Your task to perform on an android device: move an email to a new category in the gmail app Image 0: 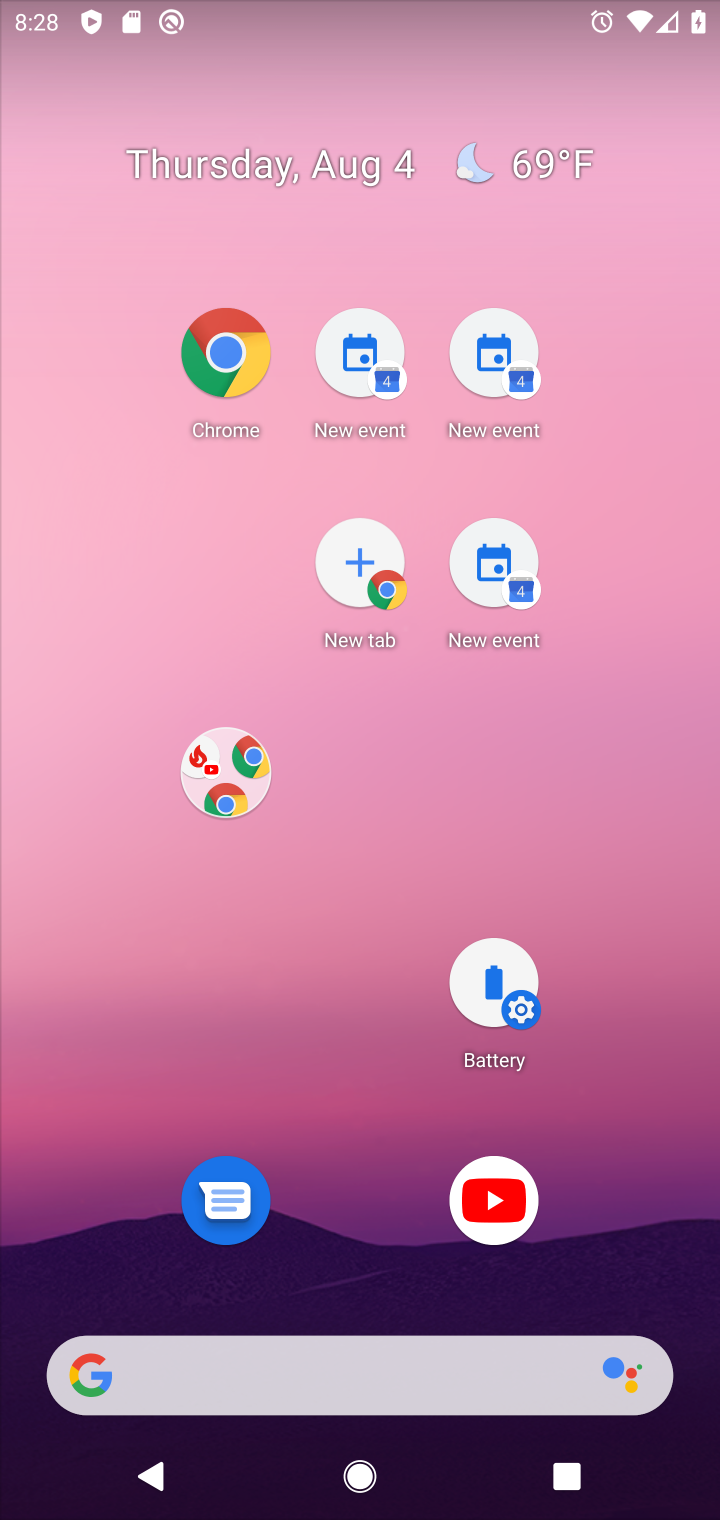
Step 0: press back button
Your task to perform on an android device: move an email to a new category in the gmail app Image 1: 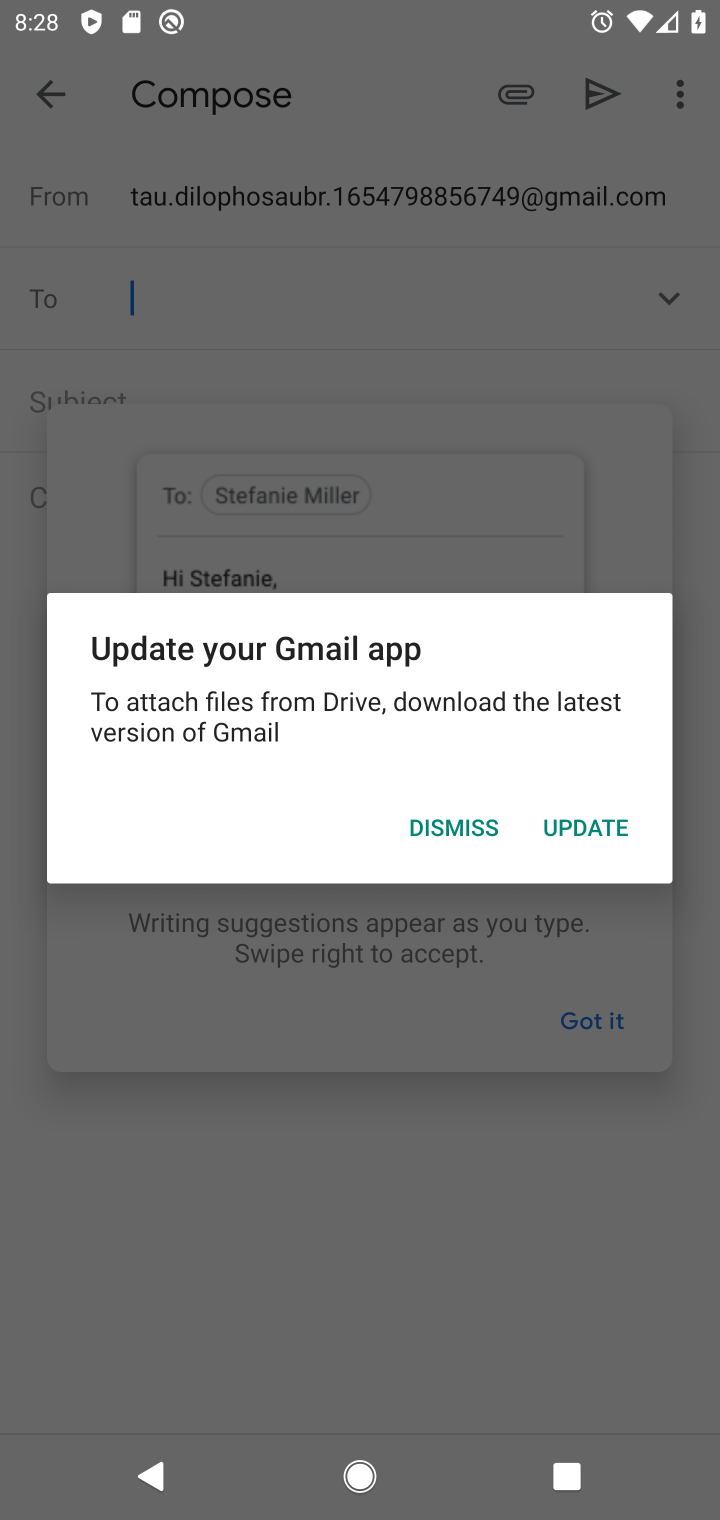
Step 1: click (423, 822)
Your task to perform on an android device: move an email to a new category in the gmail app Image 2: 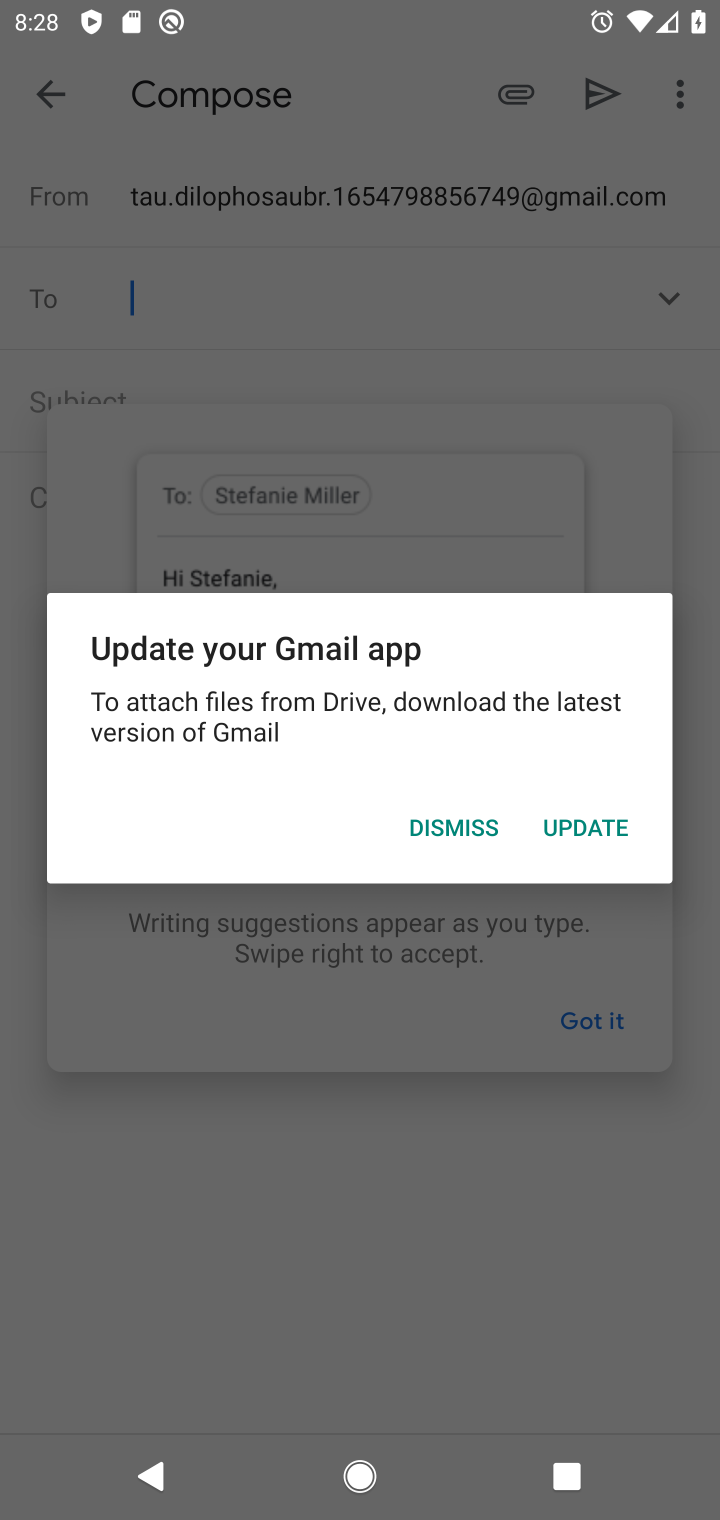
Step 2: click (423, 822)
Your task to perform on an android device: move an email to a new category in the gmail app Image 3: 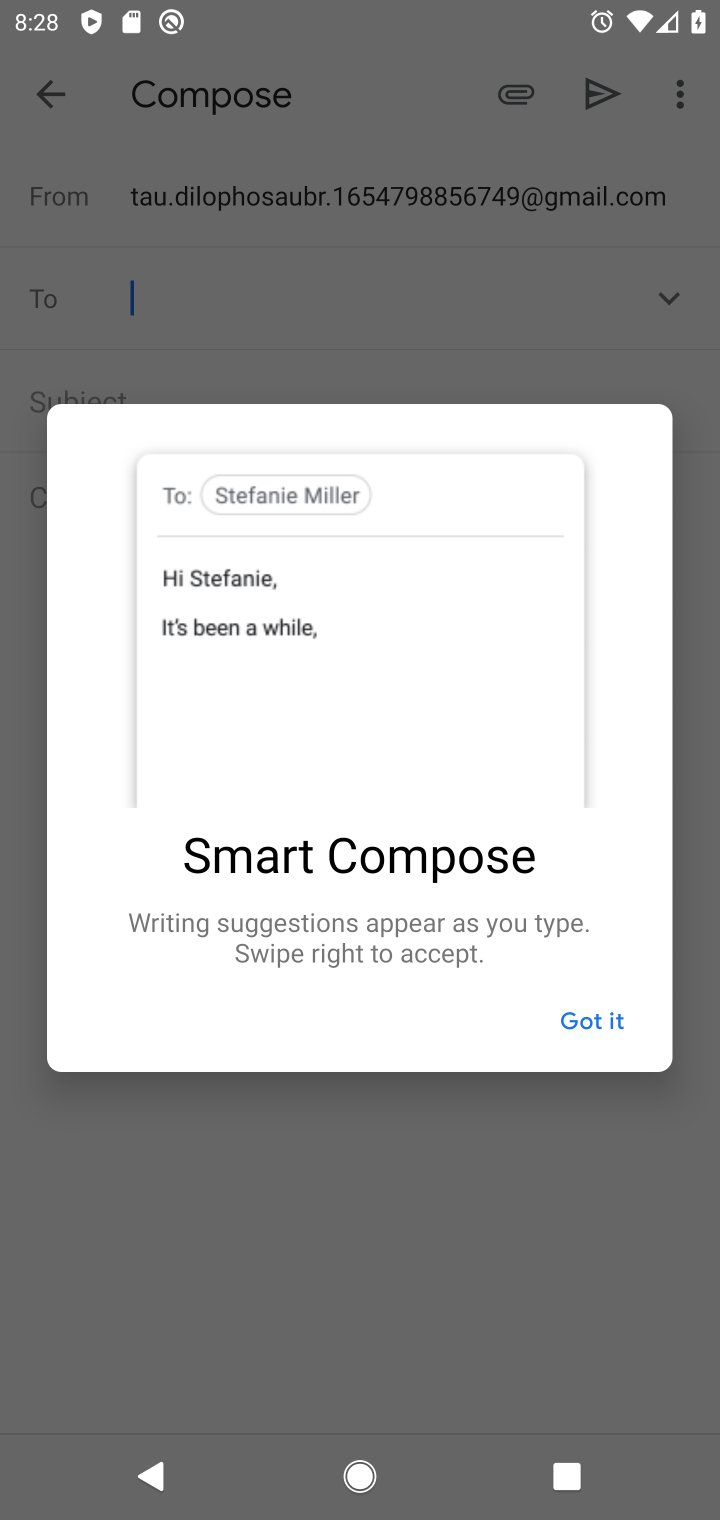
Step 3: click (583, 1026)
Your task to perform on an android device: move an email to a new category in the gmail app Image 4: 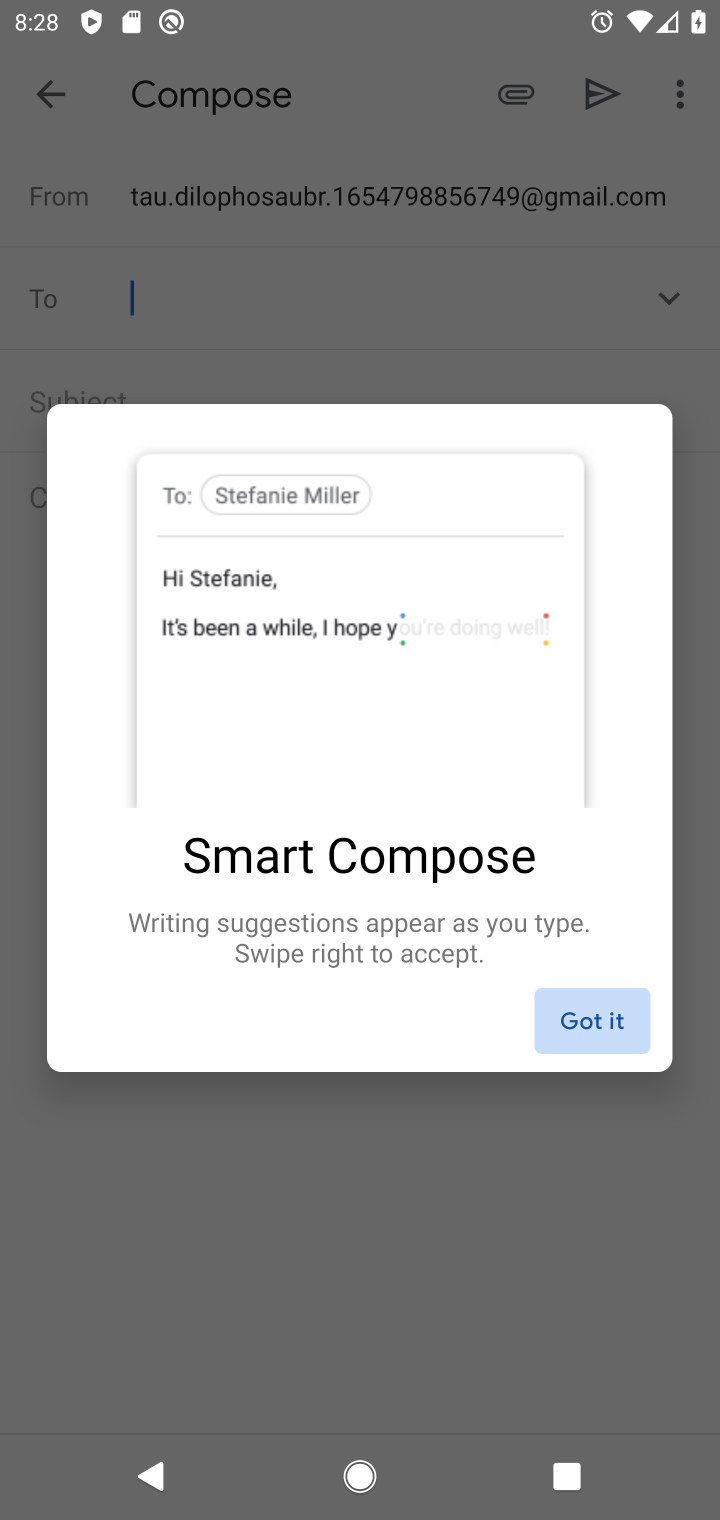
Step 4: click (589, 1021)
Your task to perform on an android device: move an email to a new category in the gmail app Image 5: 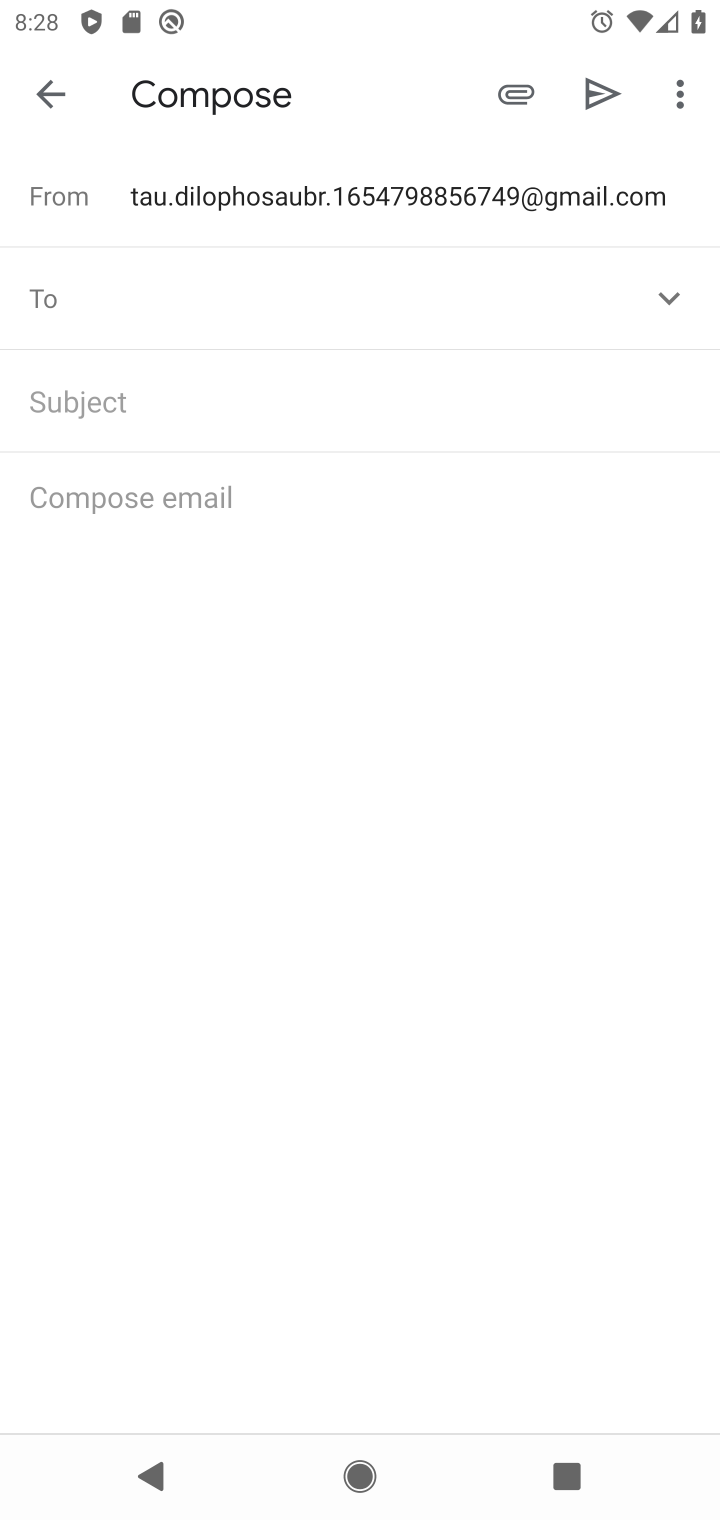
Step 5: click (53, 97)
Your task to perform on an android device: move an email to a new category in the gmail app Image 6: 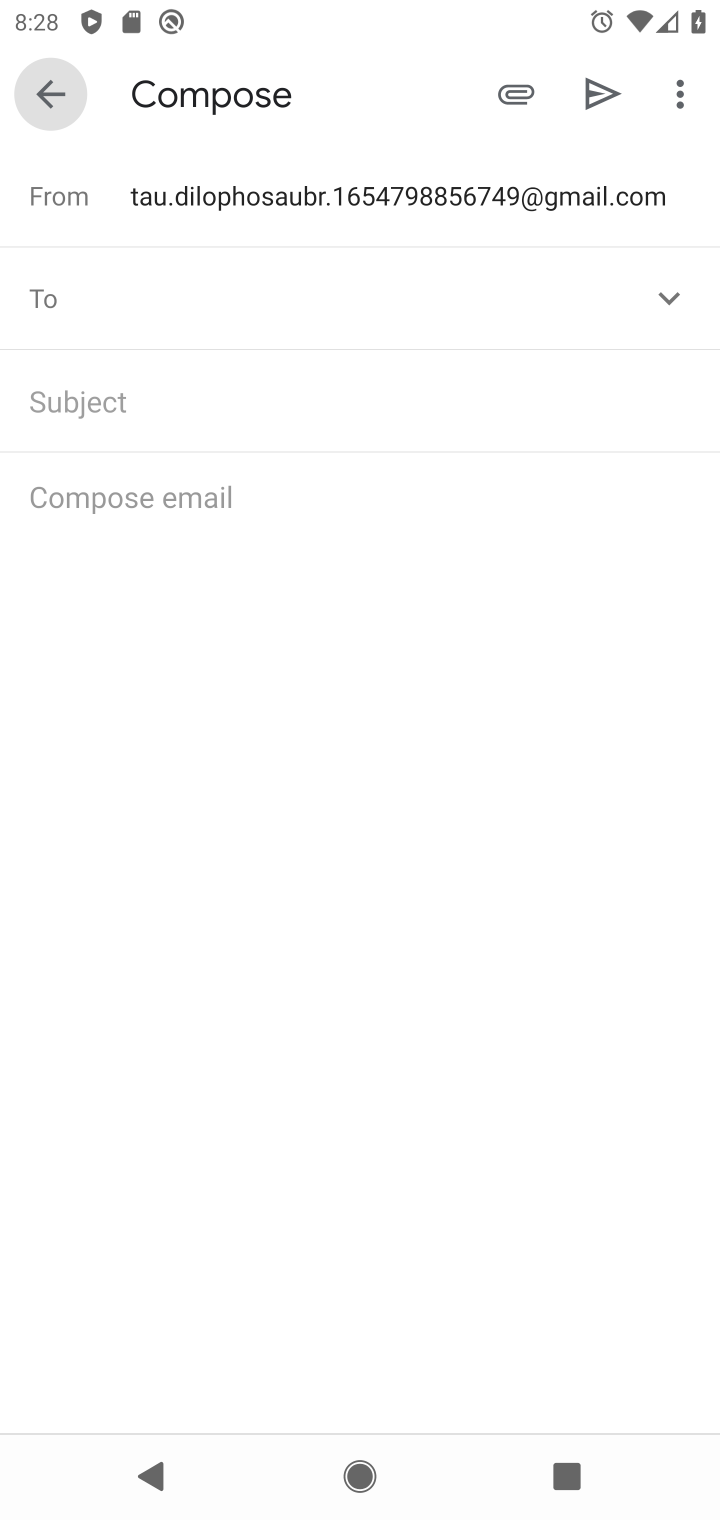
Step 6: click (51, 95)
Your task to perform on an android device: move an email to a new category in the gmail app Image 7: 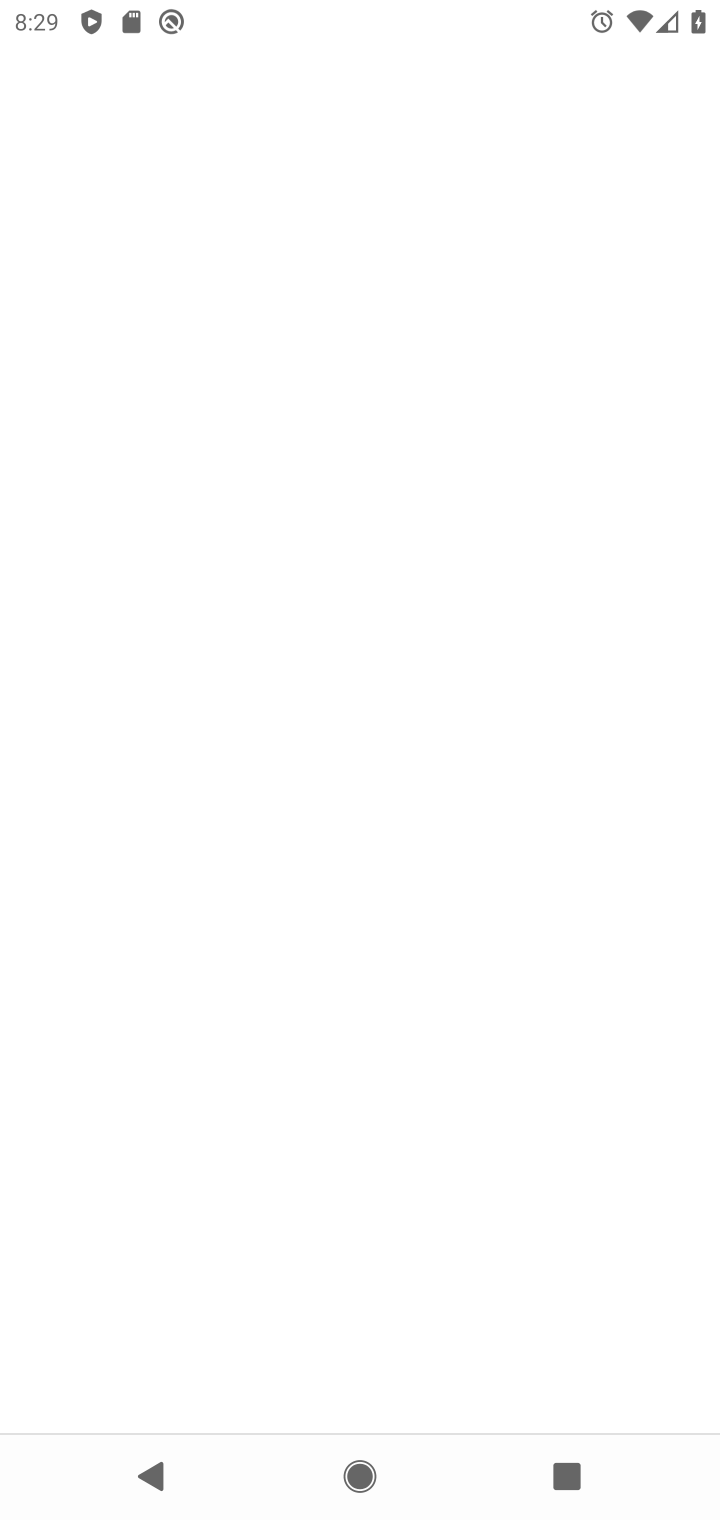
Step 7: click (72, 91)
Your task to perform on an android device: move an email to a new category in the gmail app Image 8: 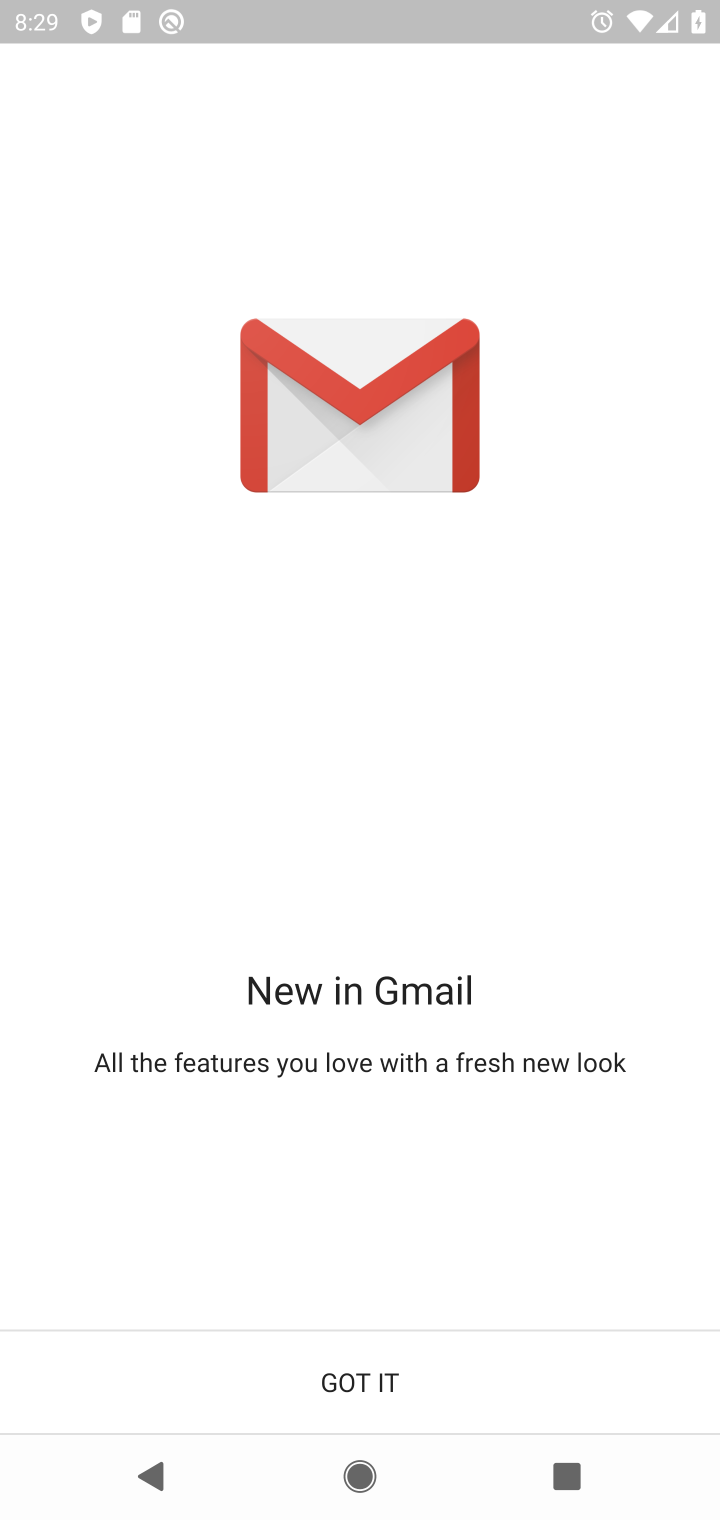
Step 8: click (334, 1369)
Your task to perform on an android device: move an email to a new category in the gmail app Image 9: 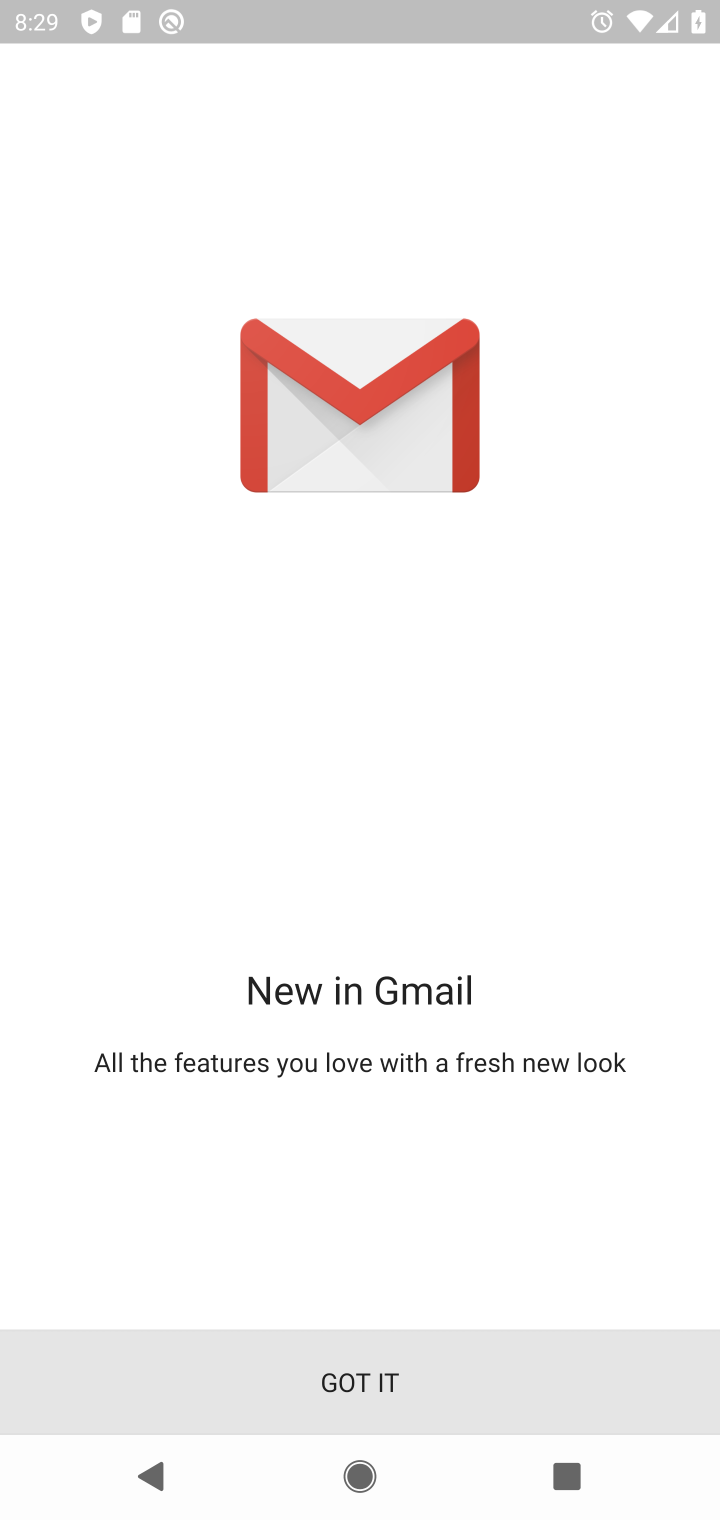
Step 9: click (332, 1369)
Your task to perform on an android device: move an email to a new category in the gmail app Image 10: 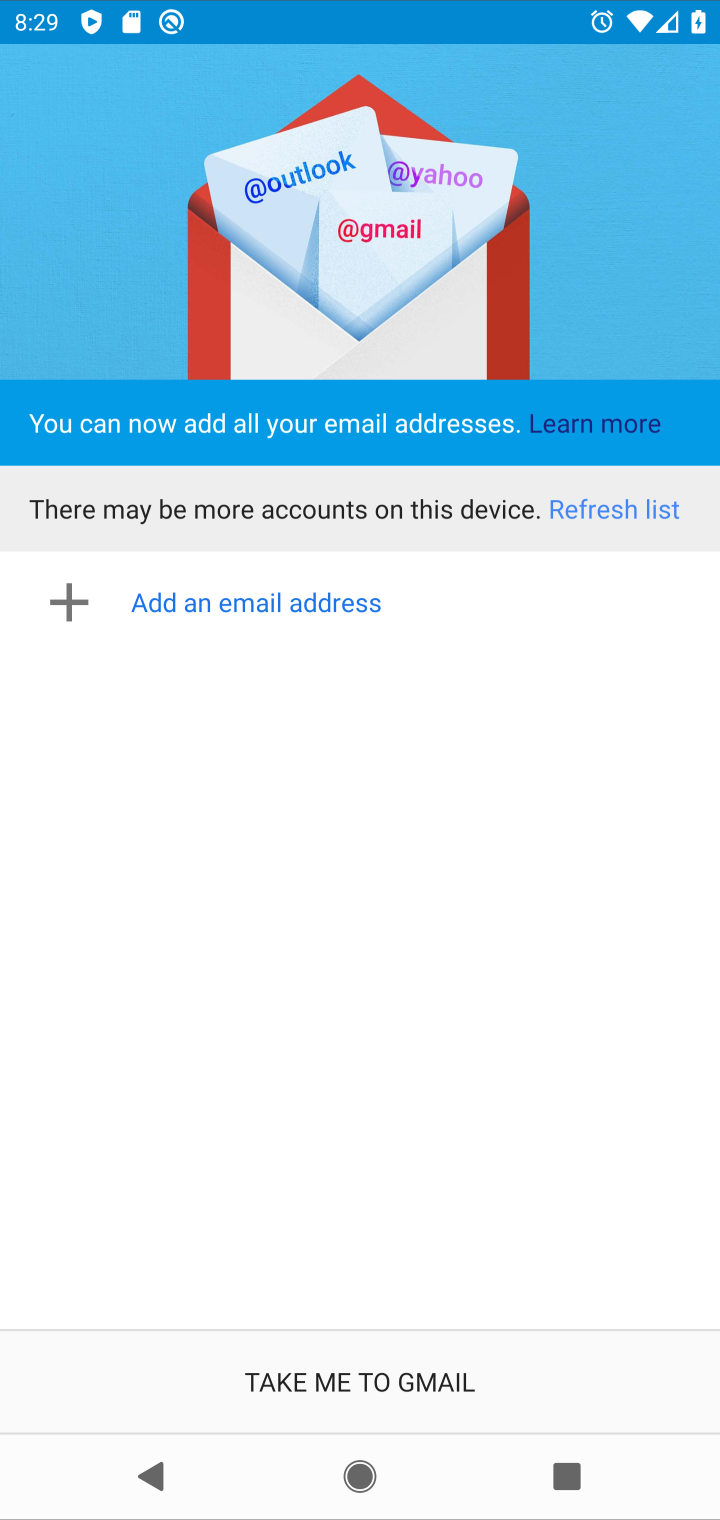
Step 10: click (341, 1368)
Your task to perform on an android device: move an email to a new category in the gmail app Image 11: 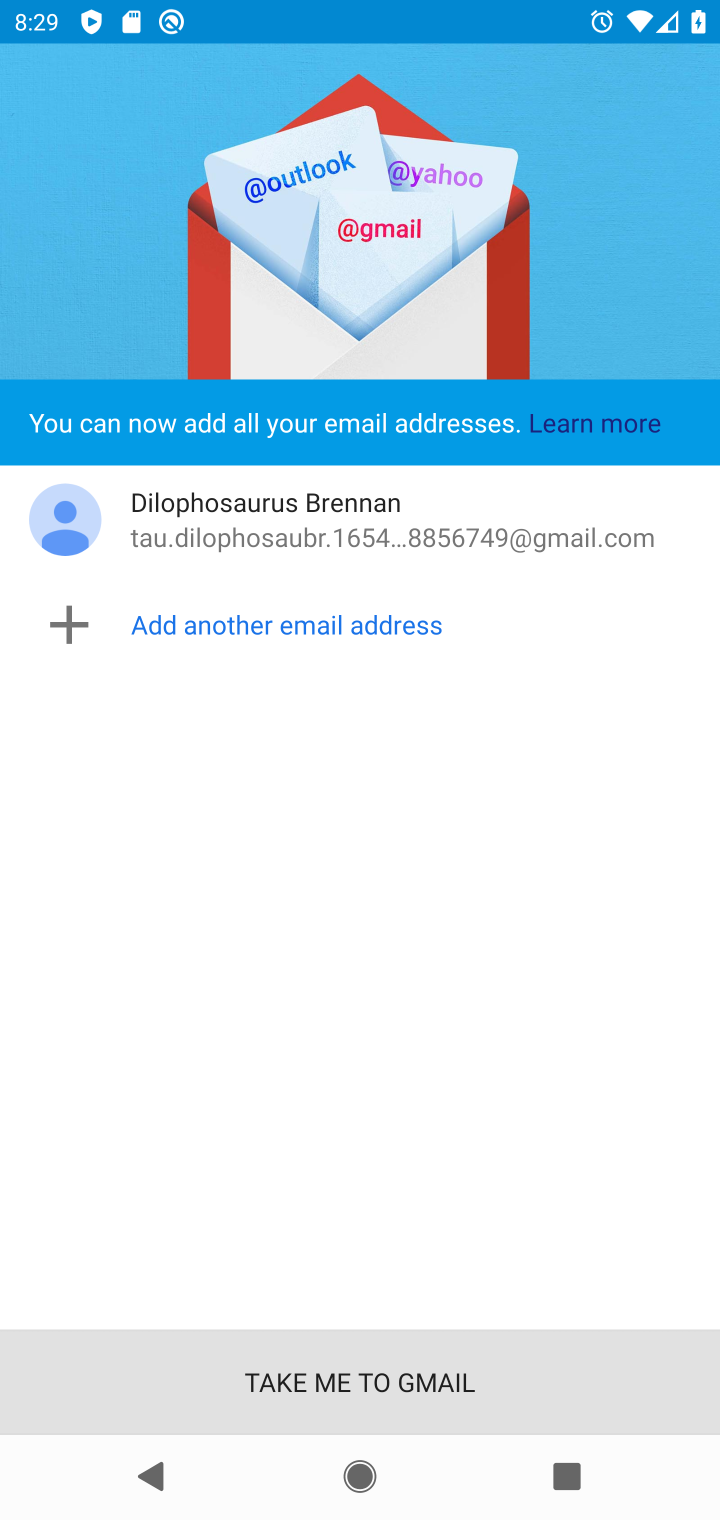
Step 11: click (341, 1368)
Your task to perform on an android device: move an email to a new category in the gmail app Image 12: 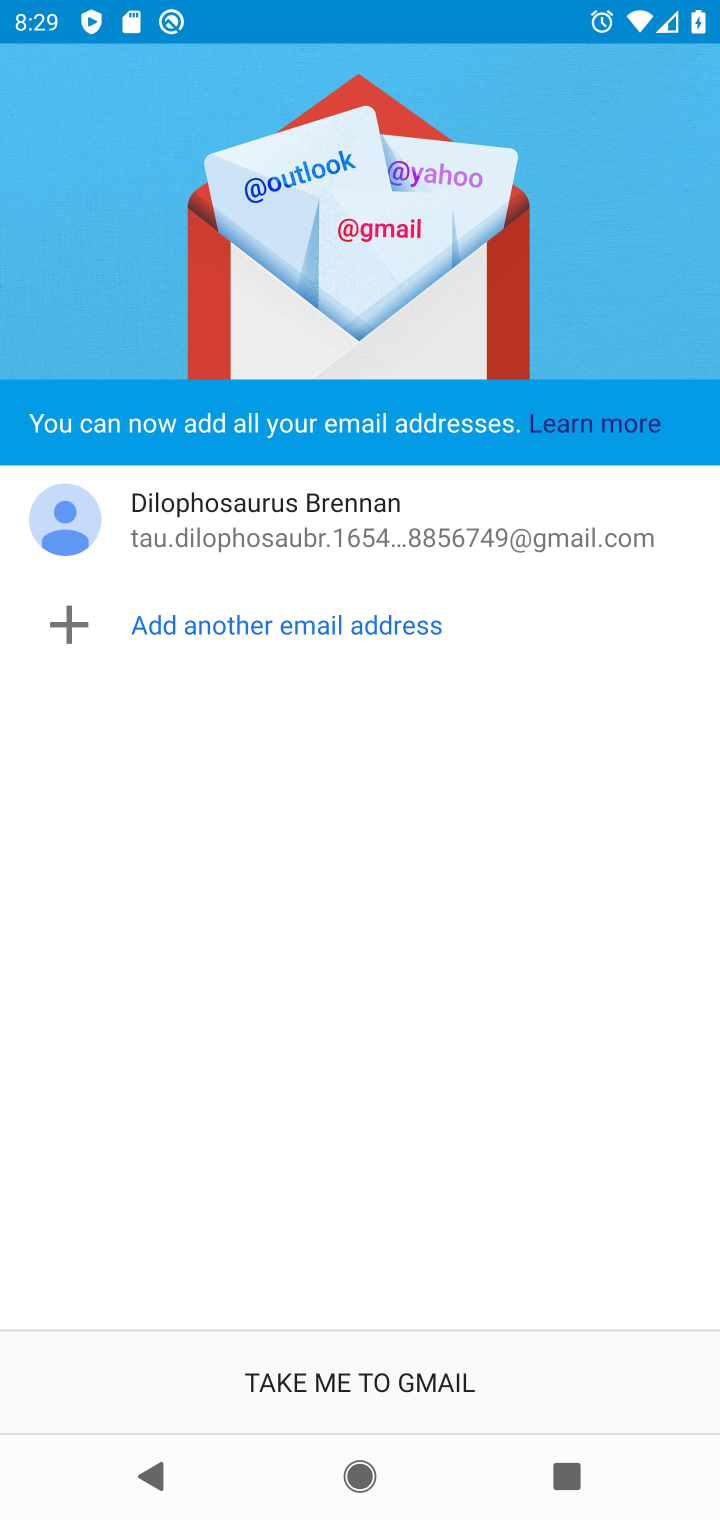
Step 12: click (341, 1368)
Your task to perform on an android device: move an email to a new category in the gmail app Image 13: 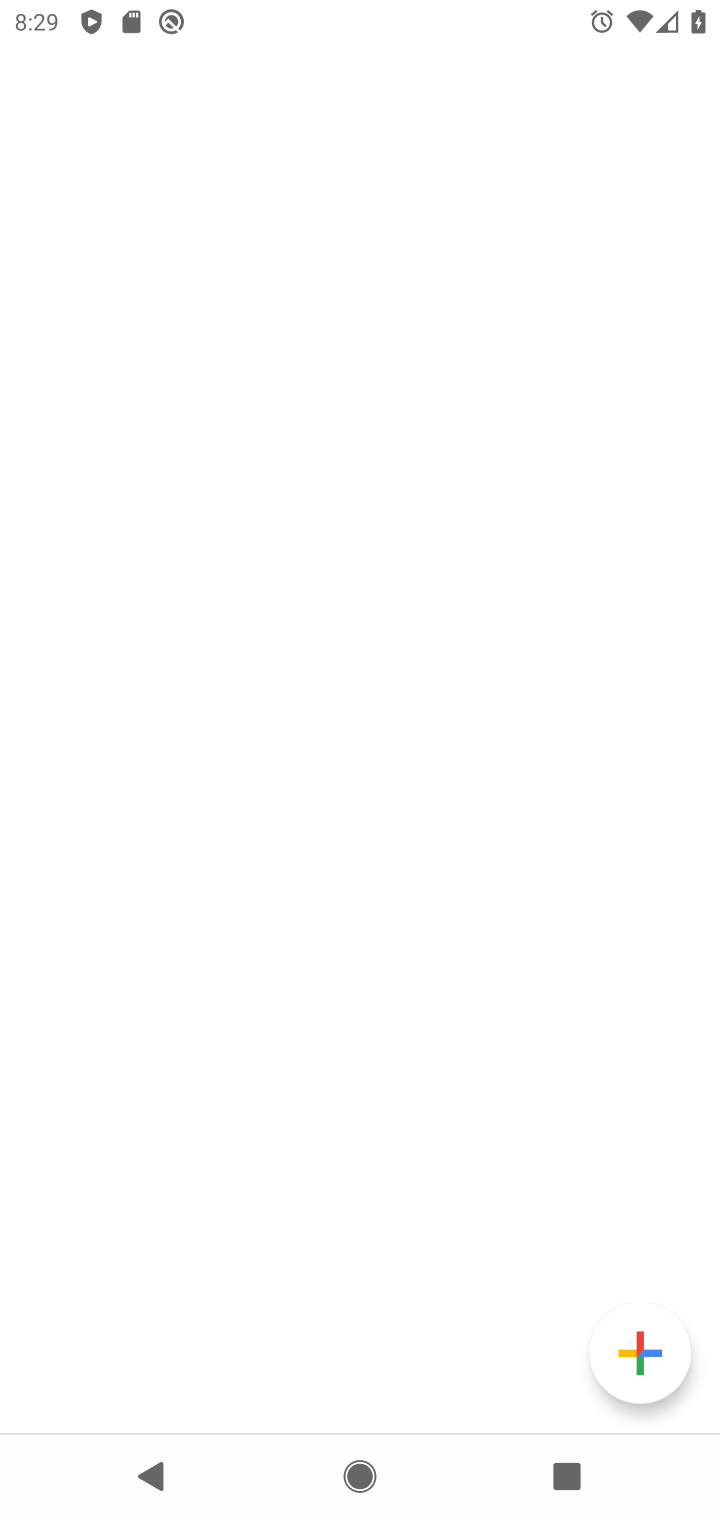
Step 13: click (341, 1368)
Your task to perform on an android device: move an email to a new category in the gmail app Image 14: 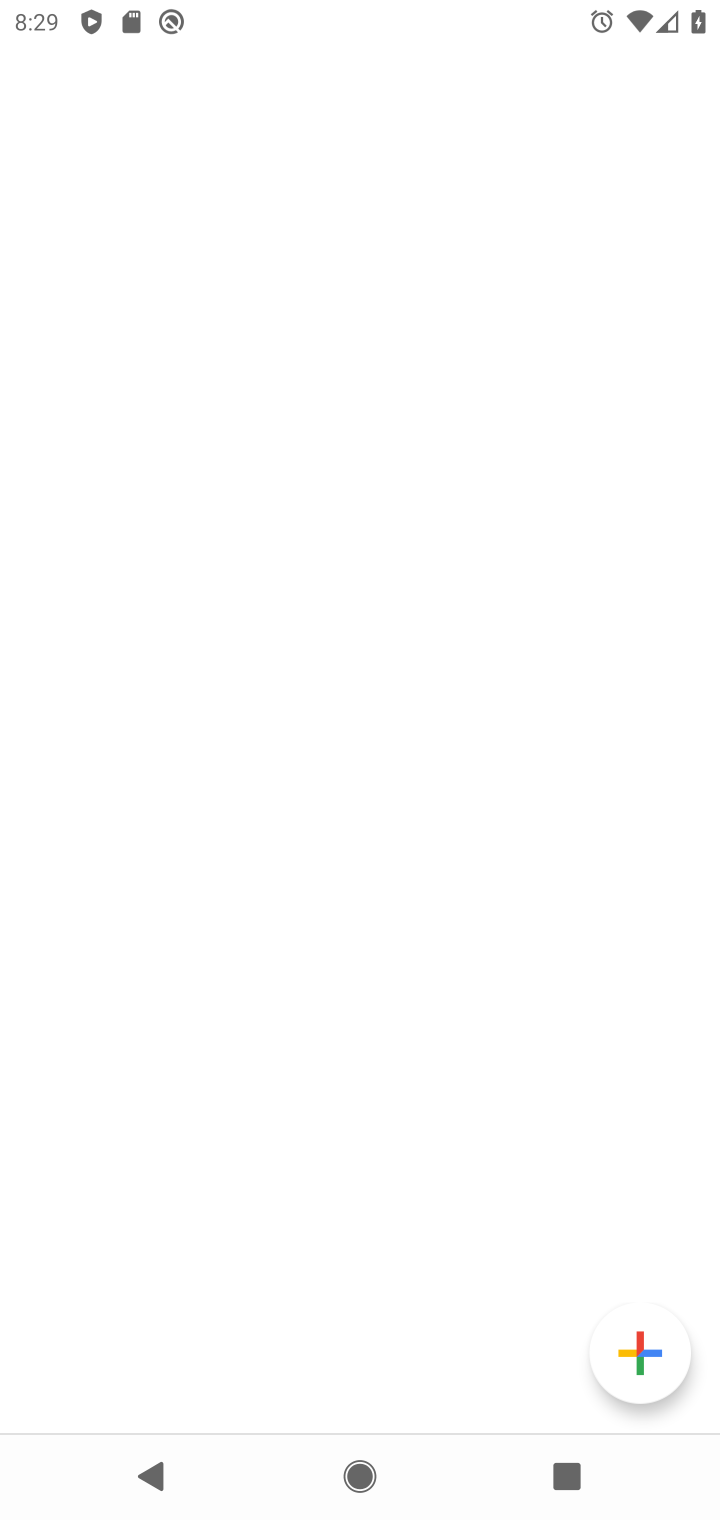
Step 14: click (341, 1368)
Your task to perform on an android device: move an email to a new category in the gmail app Image 15: 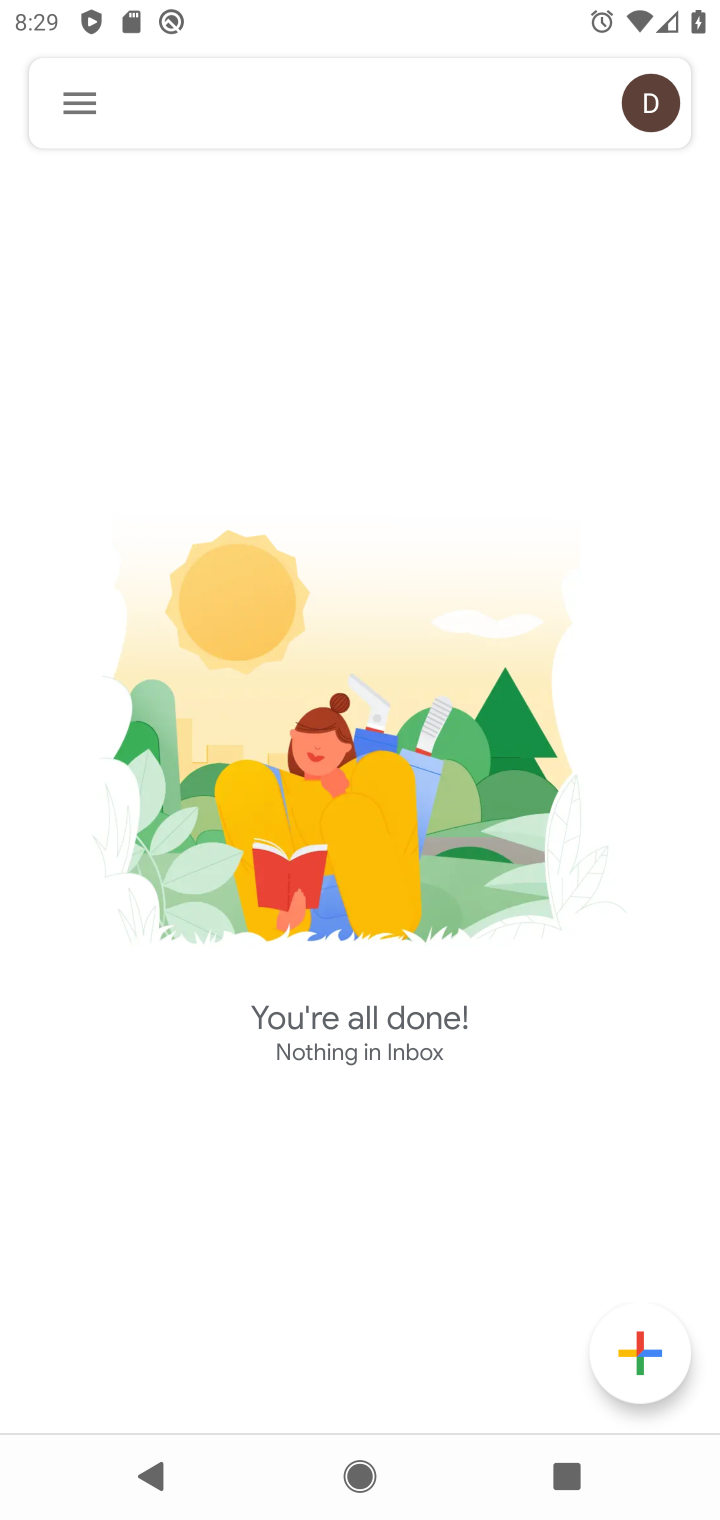
Step 15: click (76, 109)
Your task to perform on an android device: move an email to a new category in the gmail app Image 16: 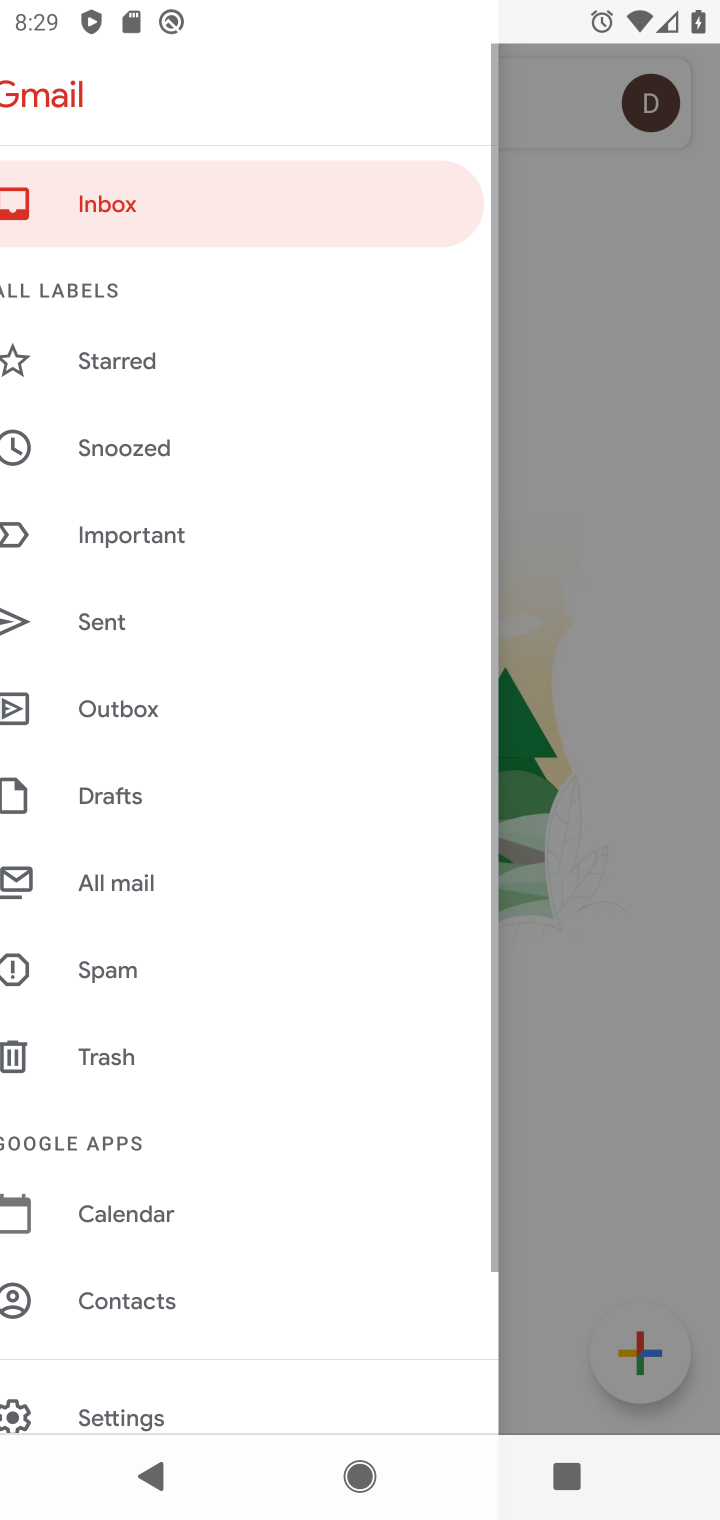
Step 16: click (76, 109)
Your task to perform on an android device: move an email to a new category in the gmail app Image 17: 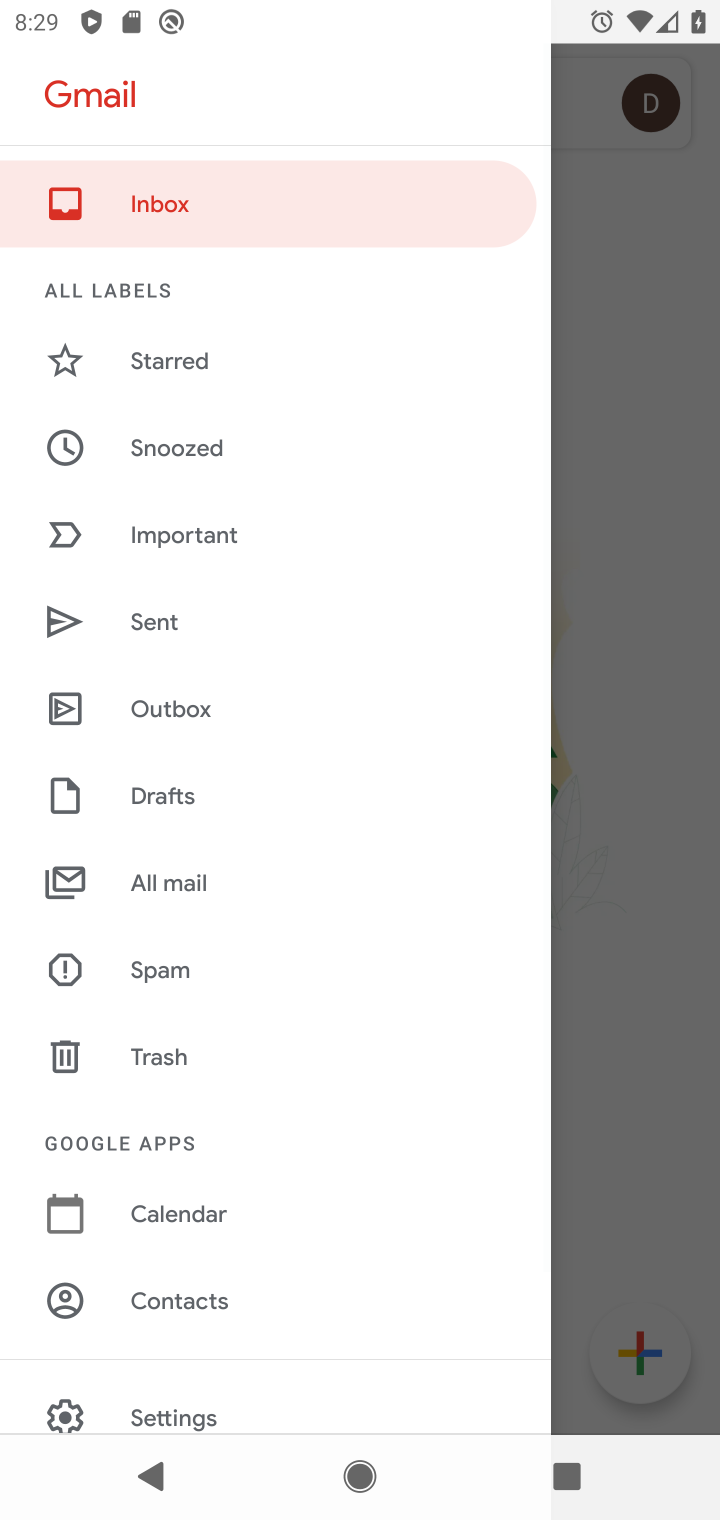
Step 17: click (179, 886)
Your task to perform on an android device: move an email to a new category in the gmail app Image 18: 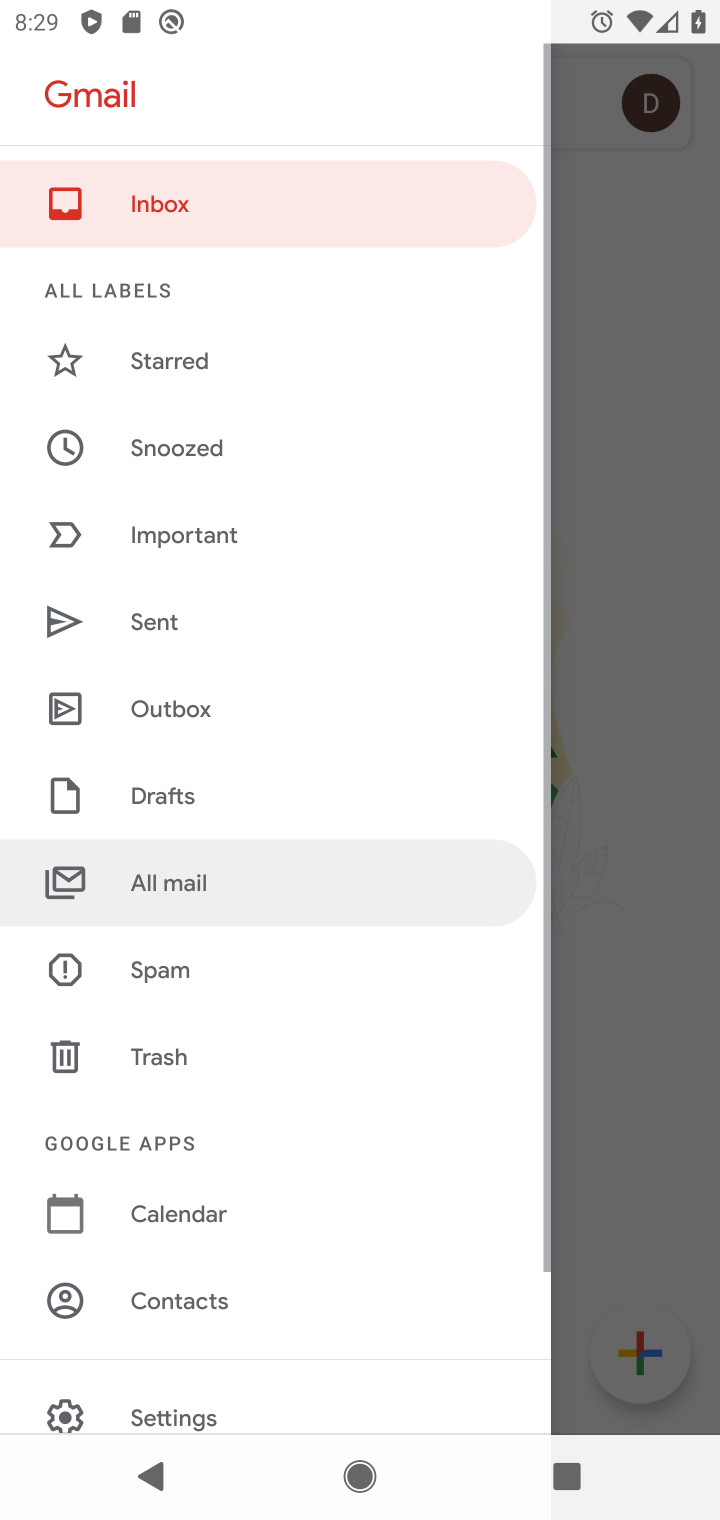
Step 18: click (179, 886)
Your task to perform on an android device: move an email to a new category in the gmail app Image 19: 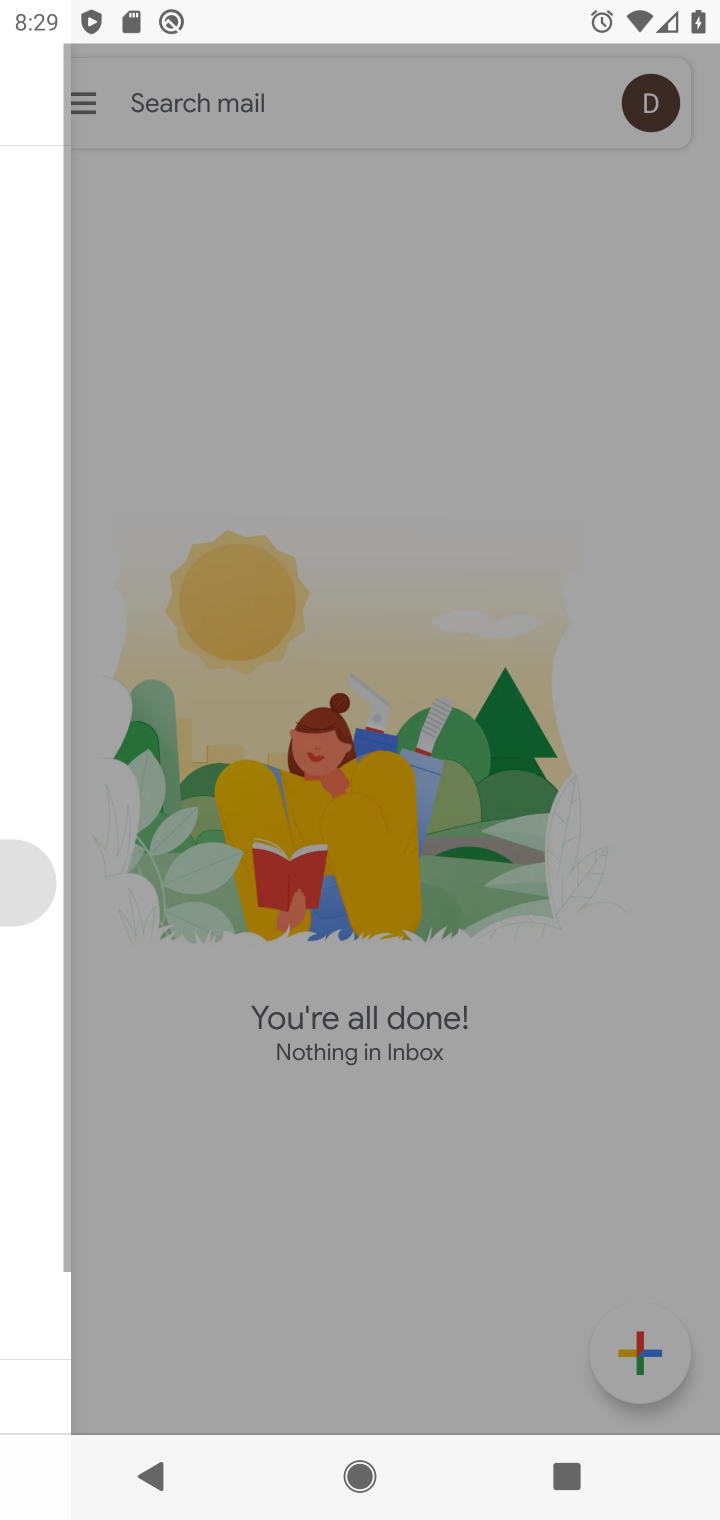
Step 19: click (179, 886)
Your task to perform on an android device: move an email to a new category in the gmail app Image 20: 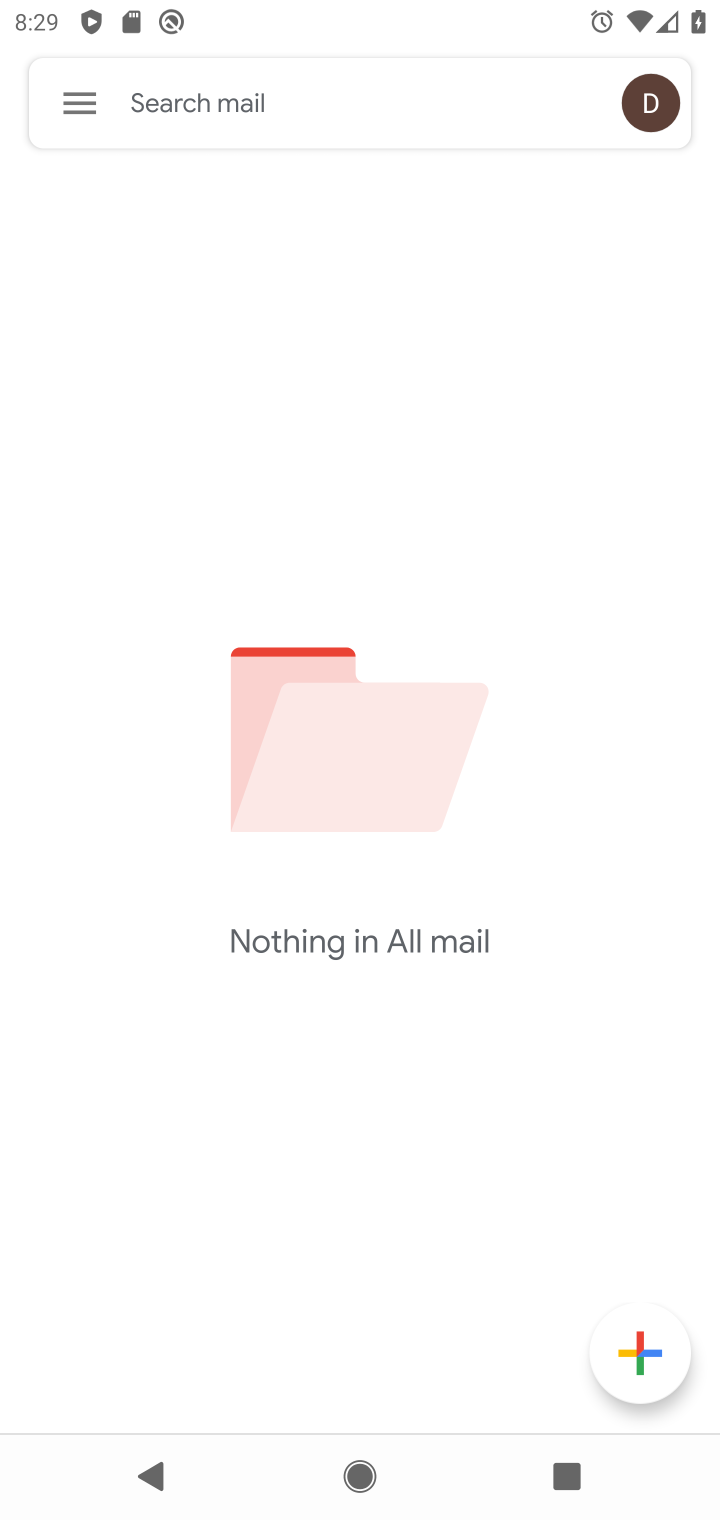
Step 20: task complete